Your task to perform on an android device: Search for apple airpods pro on costco, select the first entry, and add it to the cart. Image 0: 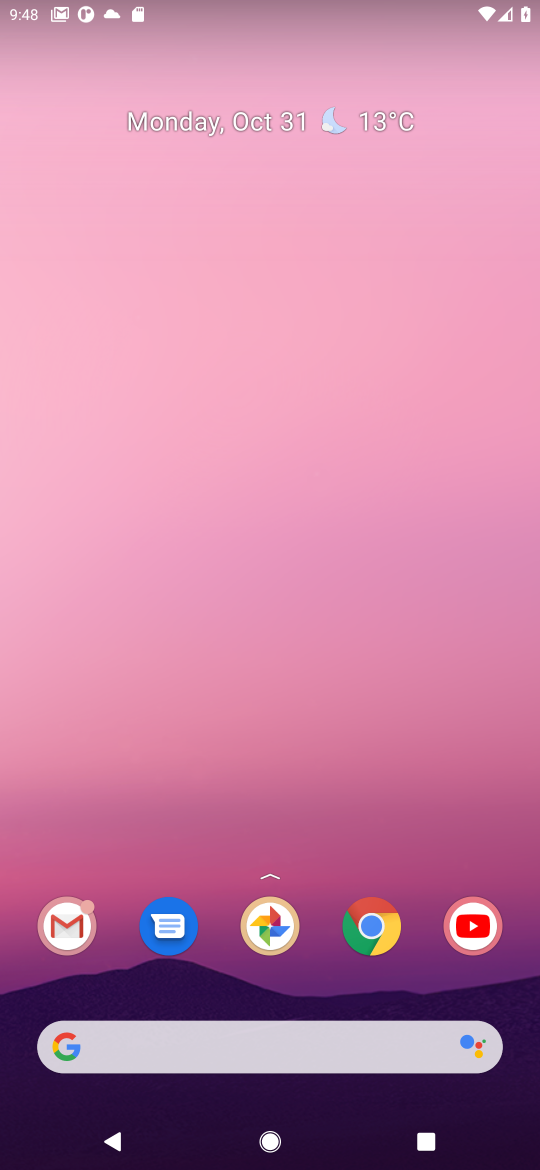
Step 0: click (378, 936)
Your task to perform on an android device: Search for apple airpods pro on costco, select the first entry, and add it to the cart. Image 1: 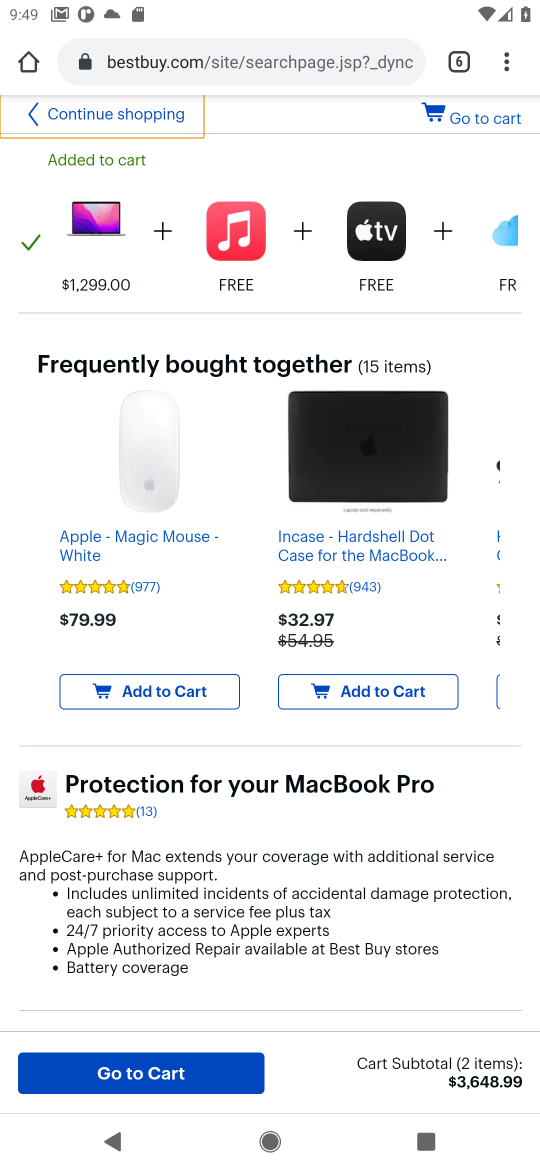
Step 1: click (460, 65)
Your task to perform on an android device: Search for apple airpods pro on costco, select the first entry, and add it to the cart. Image 2: 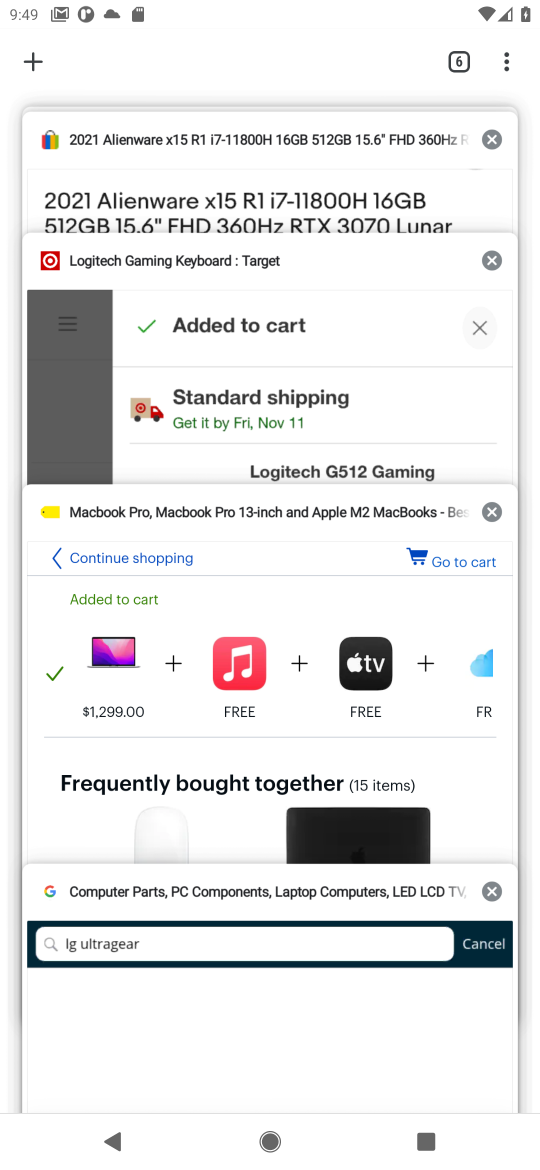
Step 2: drag from (347, 199) to (266, 606)
Your task to perform on an android device: Search for apple airpods pro on costco, select the first entry, and add it to the cart. Image 3: 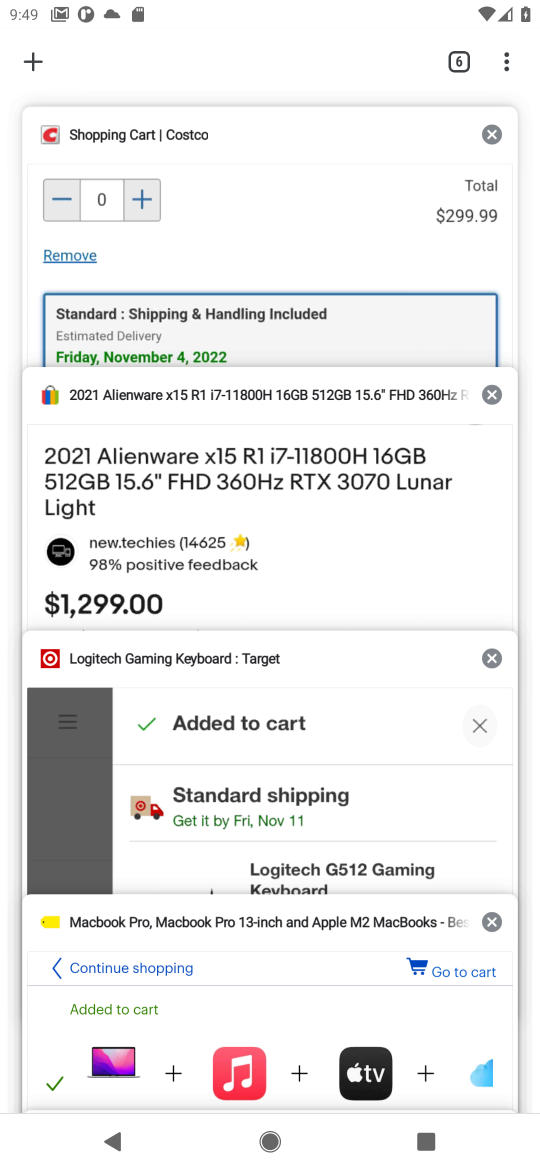
Step 3: click (276, 157)
Your task to perform on an android device: Search for apple airpods pro on costco, select the first entry, and add it to the cart. Image 4: 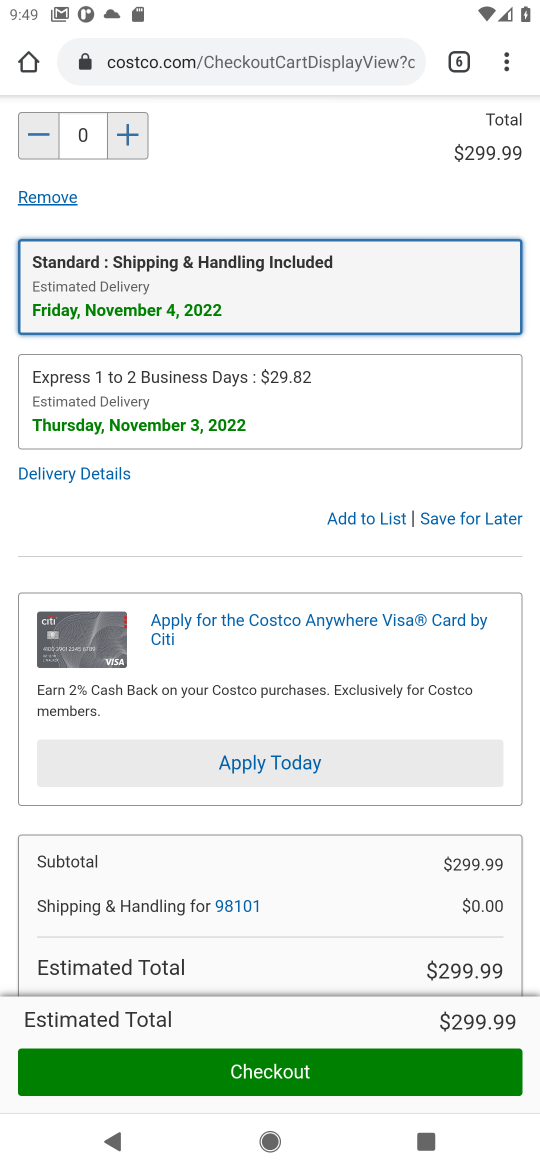
Step 4: drag from (385, 142) to (214, 1122)
Your task to perform on an android device: Search for apple airpods pro on costco, select the first entry, and add it to the cart. Image 5: 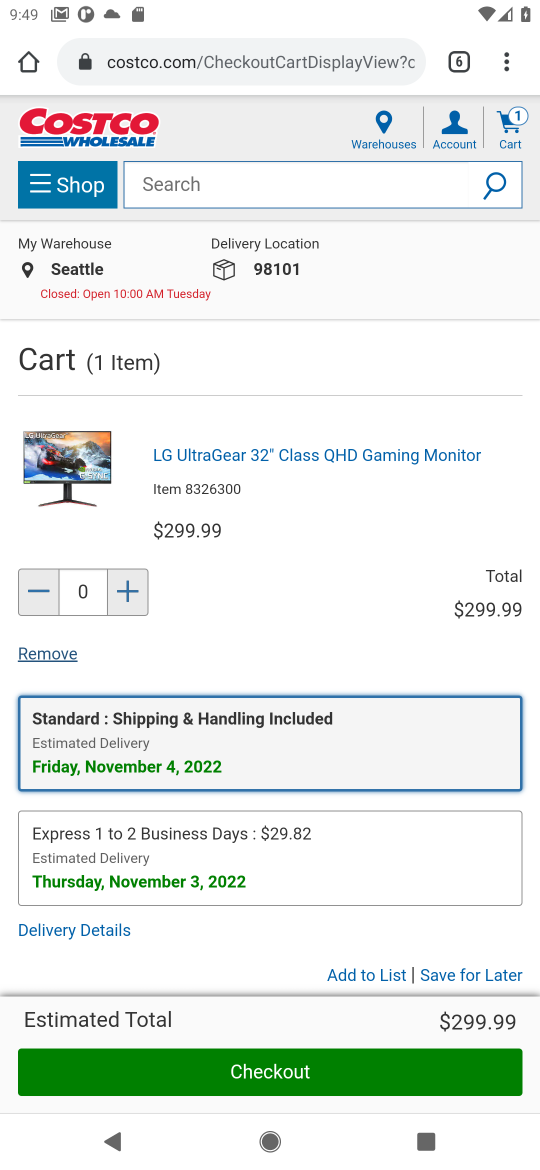
Step 5: click (262, 197)
Your task to perform on an android device: Search for apple airpods pro on costco, select the first entry, and add it to the cart. Image 6: 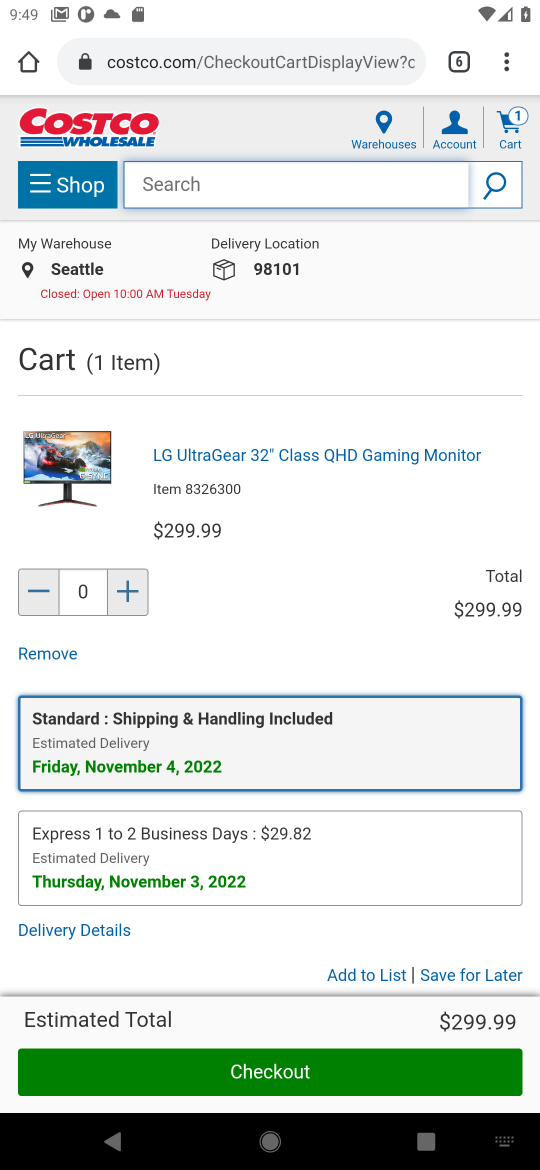
Step 6: type "apple airpods pro"
Your task to perform on an android device: Search for apple airpods pro on costco, select the first entry, and add it to the cart. Image 7: 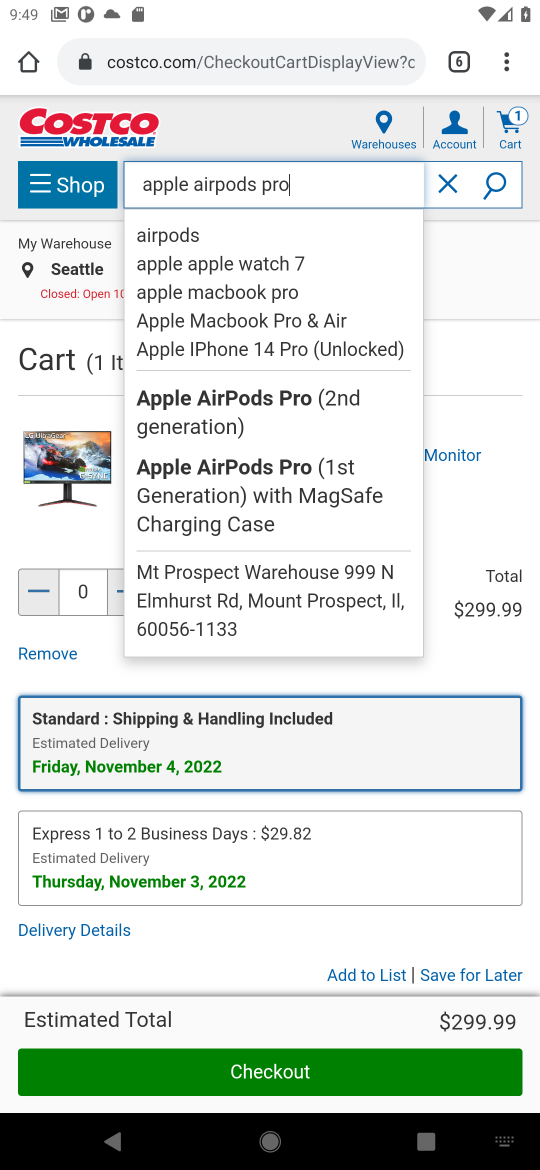
Step 7: click (236, 397)
Your task to perform on an android device: Search for apple airpods pro on costco, select the first entry, and add it to the cart. Image 8: 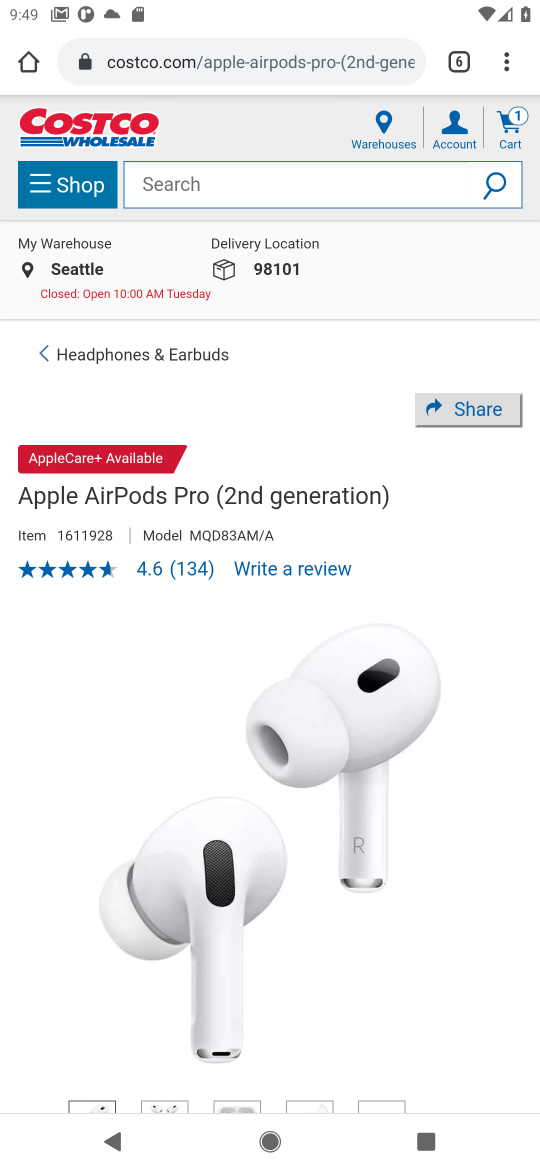
Step 8: drag from (313, 924) to (447, 261)
Your task to perform on an android device: Search for apple airpods pro on costco, select the first entry, and add it to the cart. Image 9: 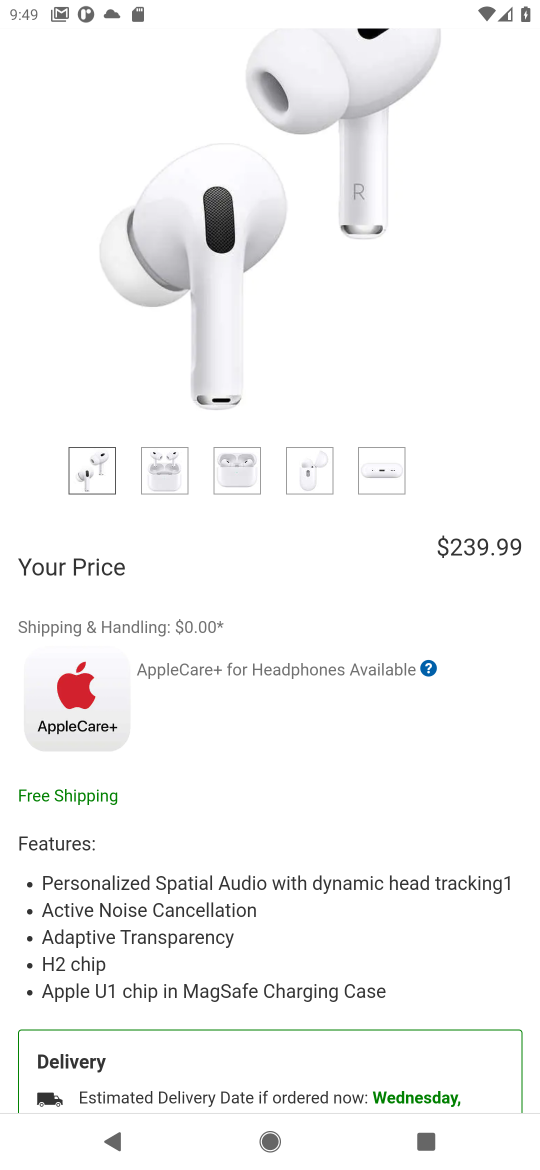
Step 9: drag from (211, 792) to (531, 203)
Your task to perform on an android device: Search for apple airpods pro on costco, select the first entry, and add it to the cart. Image 10: 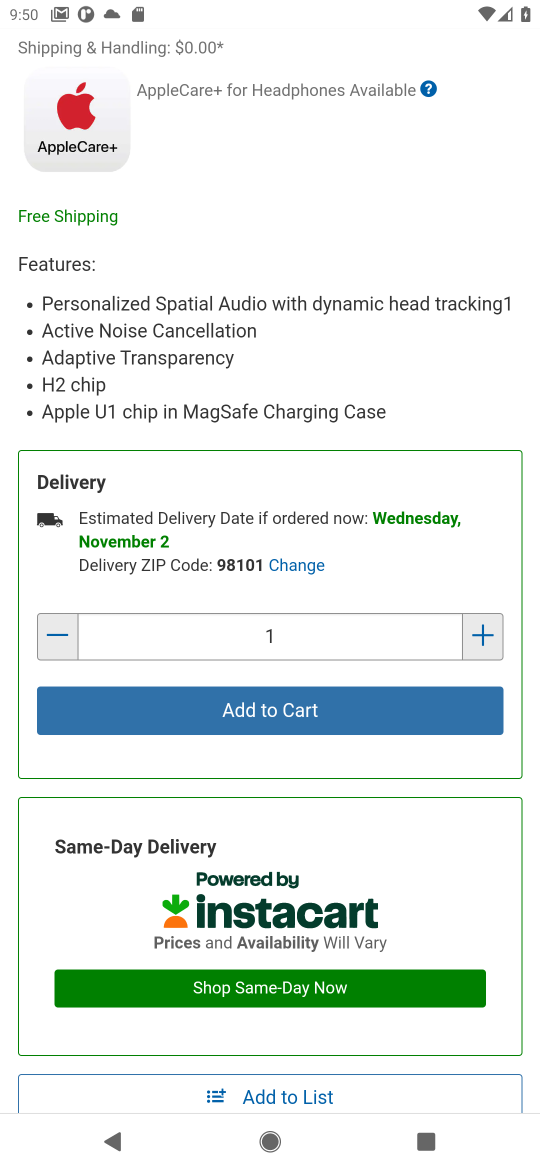
Step 10: click (280, 722)
Your task to perform on an android device: Search for apple airpods pro on costco, select the first entry, and add it to the cart. Image 11: 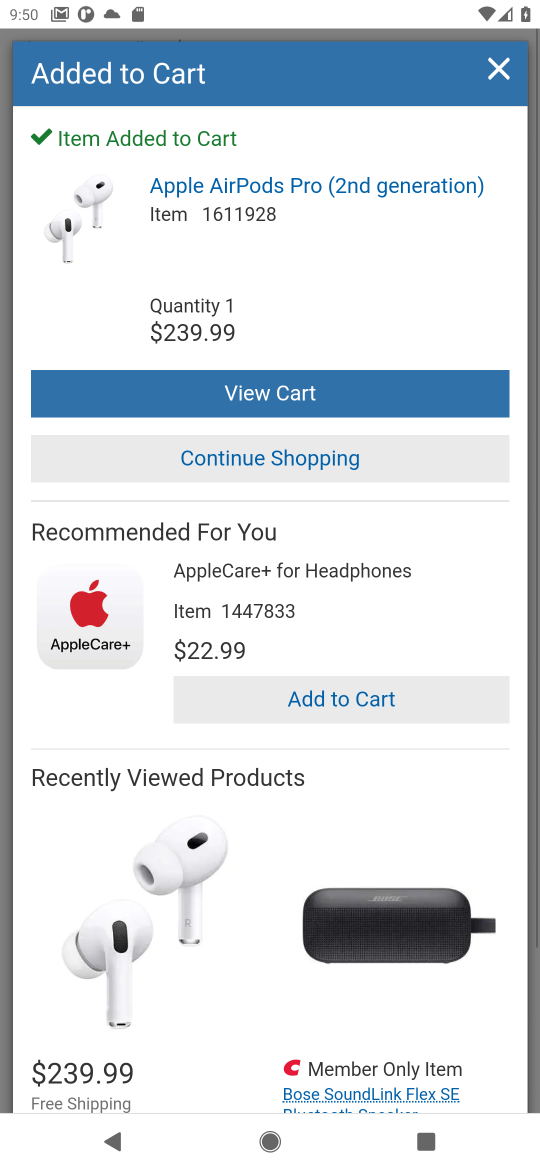
Step 11: task complete